Your task to perform on an android device: set the stopwatch Image 0: 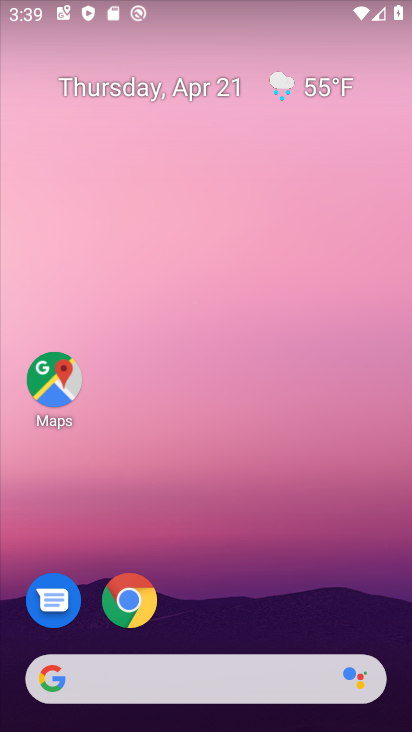
Step 0: drag from (156, 687) to (265, 168)
Your task to perform on an android device: set the stopwatch Image 1: 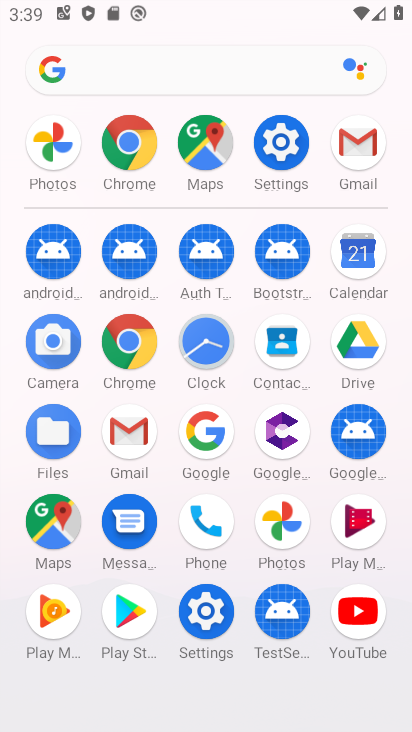
Step 1: click (210, 344)
Your task to perform on an android device: set the stopwatch Image 2: 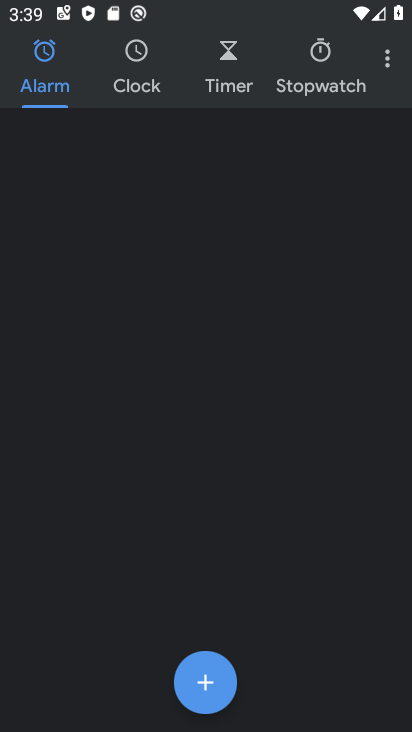
Step 2: click (338, 81)
Your task to perform on an android device: set the stopwatch Image 3: 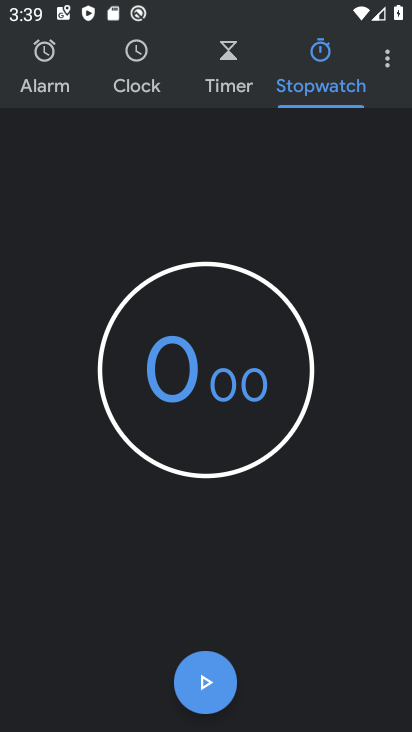
Step 3: click (215, 368)
Your task to perform on an android device: set the stopwatch Image 4: 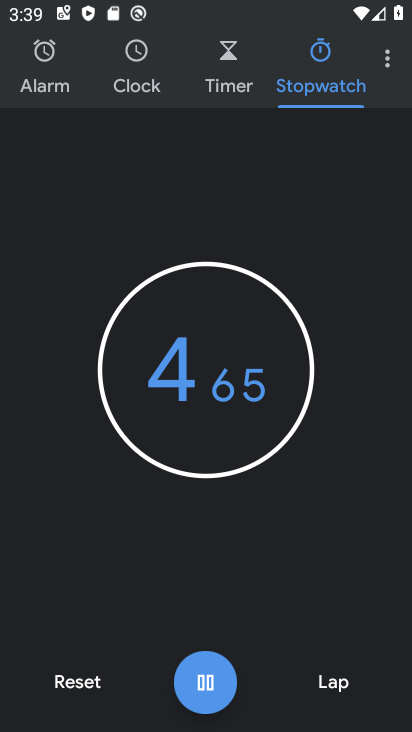
Step 4: click (196, 362)
Your task to perform on an android device: set the stopwatch Image 5: 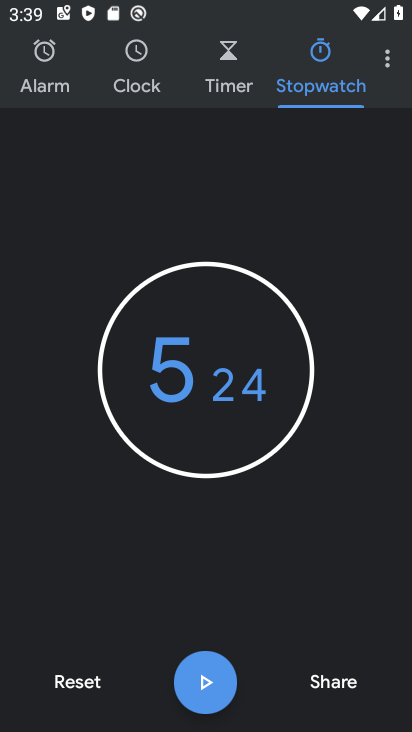
Step 5: task complete